Your task to perform on an android device: Go to privacy settings Image 0: 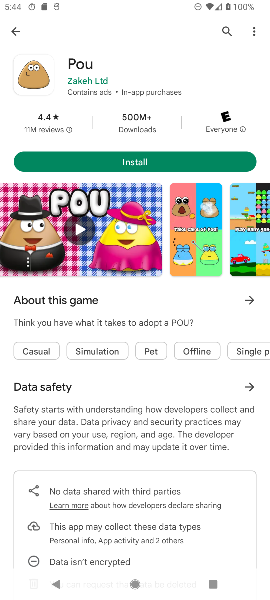
Step 0: press back button
Your task to perform on an android device: Go to privacy settings Image 1: 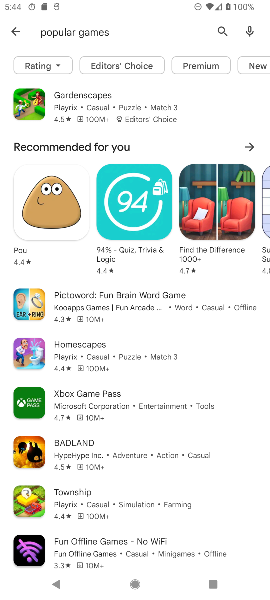
Step 1: press home button
Your task to perform on an android device: Go to privacy settings Image 2: 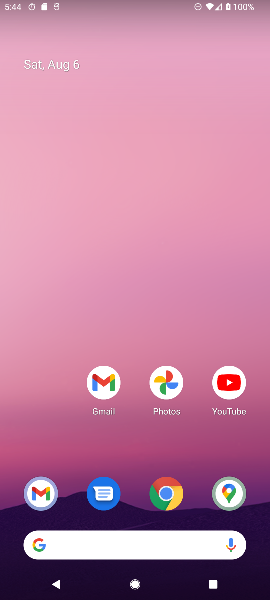
Step 2: drag from (120, 485) to (79, 74)
Your task to perform on an android device: Go to privacy settings Image 3: 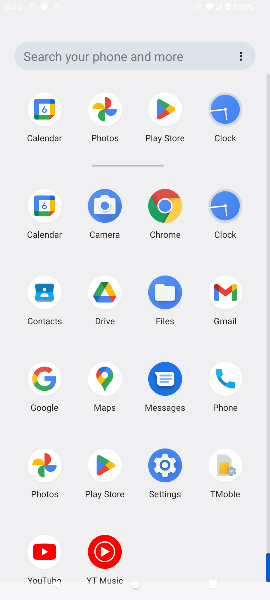
Step 3: click (115, 132)
Your task to perform on an android device: Go to privacy settings Image 4: 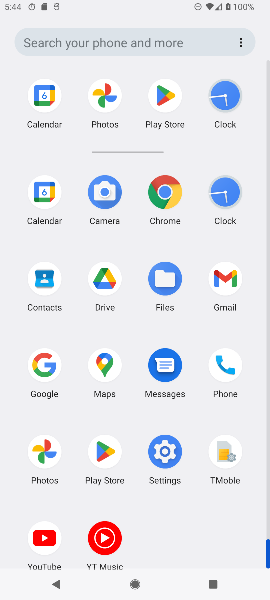
Step 4: drag from (143, 445) to (118, 181)
Your task to perform on an android device: Go to privacy settings Image 5: 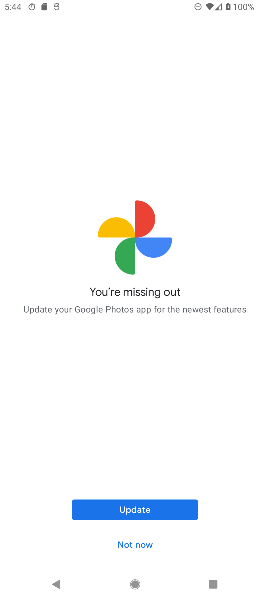
Step 5: press back button
Your task to perform on an android device: Go to privacy settings Image 6: 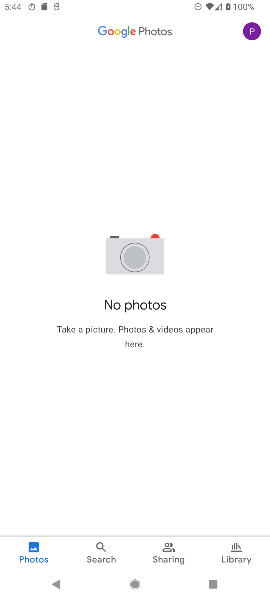
Step 6: press home button
Your task to perform on an android device: Go to privacy settings Image 7: 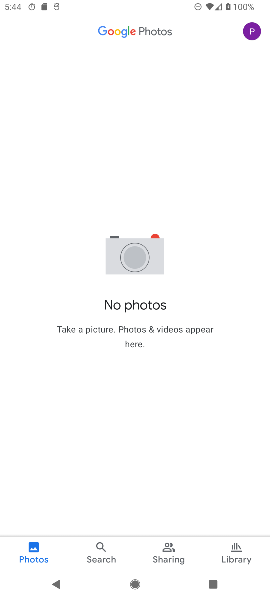
Step 7: press back button
Your task to perform on an android device: Go to privacy settings Image 8: 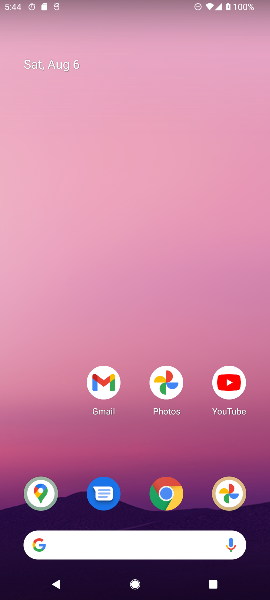
Step 8: drag from (154, 487) to (109, 153)
Your task to perform on an android device: Go to privacy settings Image 9: 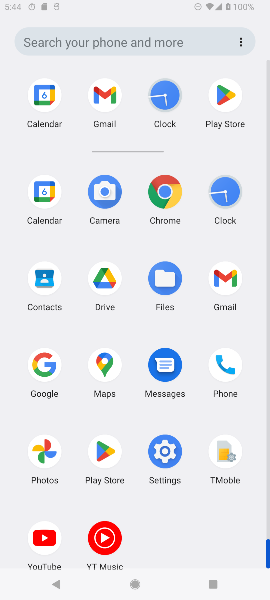
Step 9: click (107, 205)
Your task to perform on an android device: Go to privacy settings Image 10: 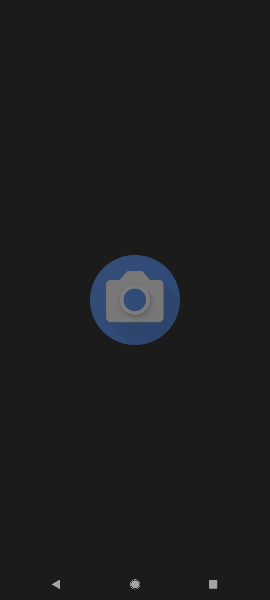
Step 10: press back button
Your task to perform on an android device: Go to privacy settings Image 11: 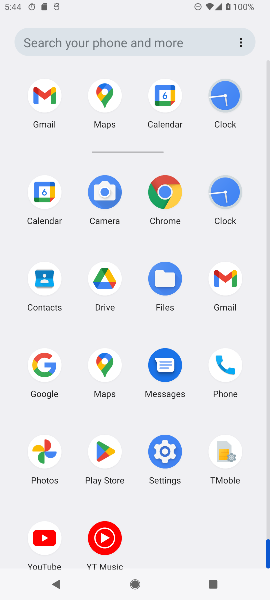
Step 11: click (161, 456)
Your task to perform on an android device: Go to privacy settings Image 12: 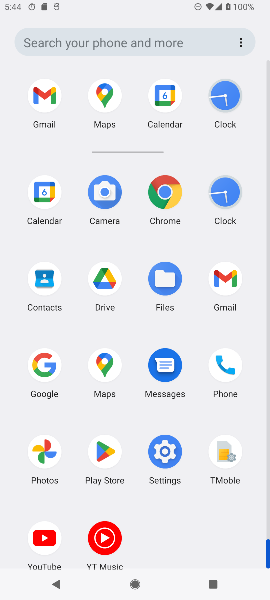
Step 12: click (161, 456)
Your task to perform on an android device: Go to privacy settings Image 13: 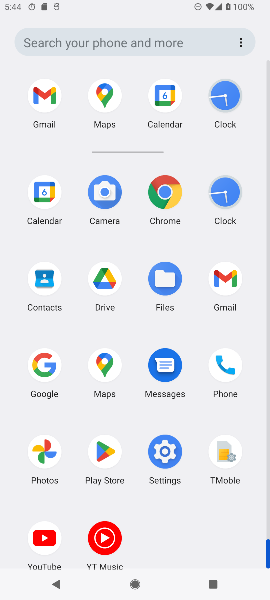
Step 13: click (161, 456)
Your task to perform on an android device: Go to privacy settings Image 14: 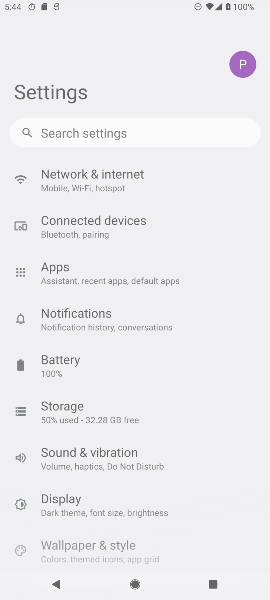
Step 14: click (163, 454)
Your task to perform on an android device: Go to privacy settings Image 15: 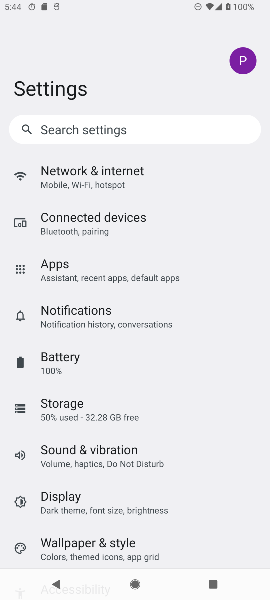
Step 15: click (163, 454)
Your task to perform on an android device: Go to privacy settings Image 16: 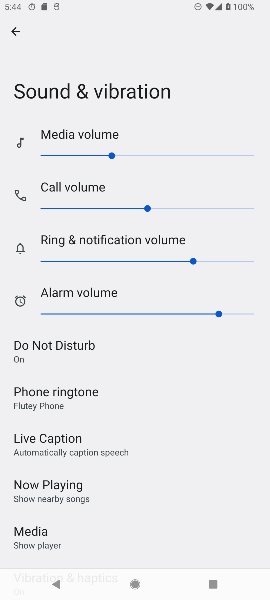
Step 16: click (12, 29)
Your task to perform on an android device: Go to privacy settings Image 17: 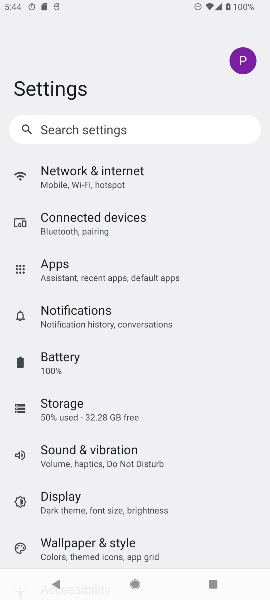
Step 17: drag from (95, 448) to (88, 179)
Your task to perform on an android device: Go to privacy settings Image 18: 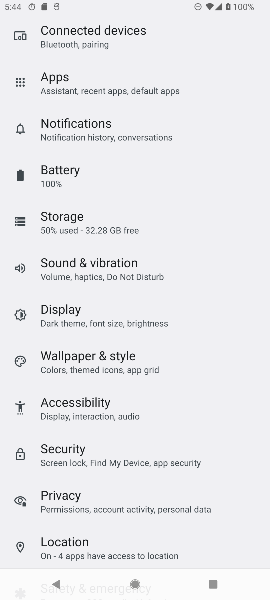
Step 18: drag from (101, 459) to (98, 265)
Your task to perform on an android device: Go to privacy settings Image 19: 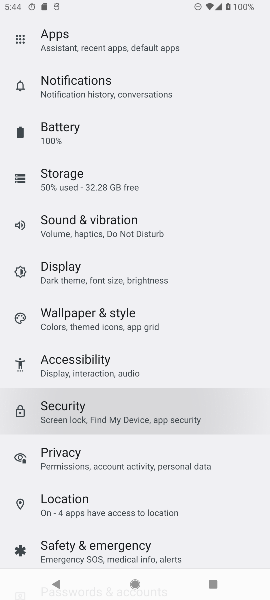
Step 19: drag from (91, 442) to (91, 215)
Your task to perform on an android device: Go to privacy settings Image 20: 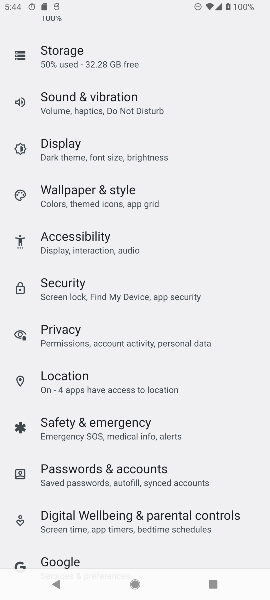
Step 20: click (73, 340)
Your task to perform on an android device: Go to privacy settings Image 21: 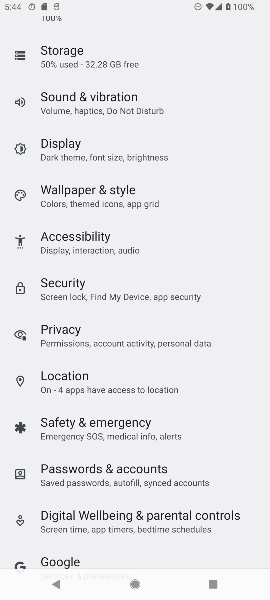
Step 21: click (73, 340)
Your task to perform on an android device: Go to privacy settings Image 22: 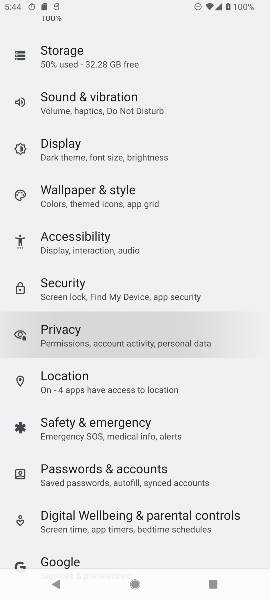
Step 22: click (73, 340)
Your task to perform on an android device: Go to privacy settings Image 23: 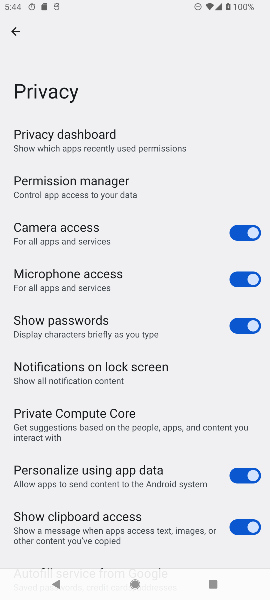
Step 23: task complete